Your task to perform on an android device: open app "Google Drive" (install if not already installed) Image 0: 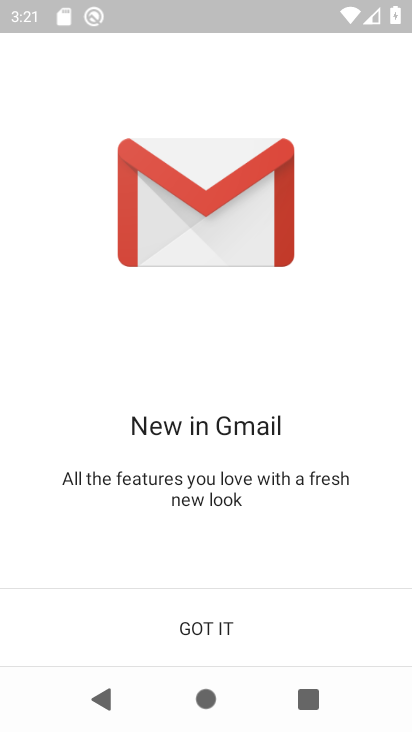
Step 0: press home button
Your task to perform on an android device: open app "Google Drive" (install if not already installed) Image 1: 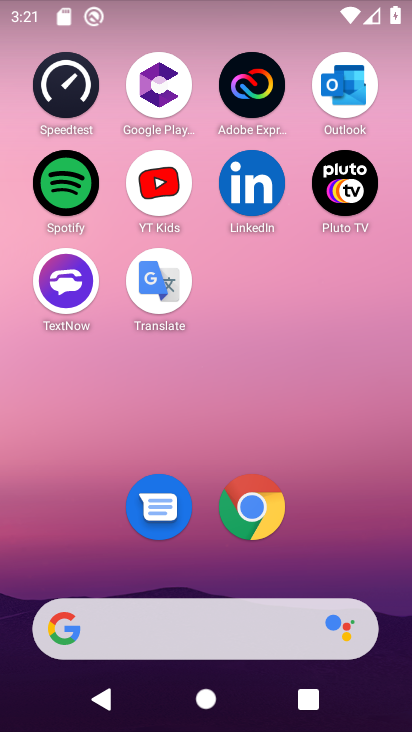
Step 1: drag from (139, 634) to (243, 113)
Your task to perform on an android device: open app "Google Drive" (install if not already installed) Image 2: 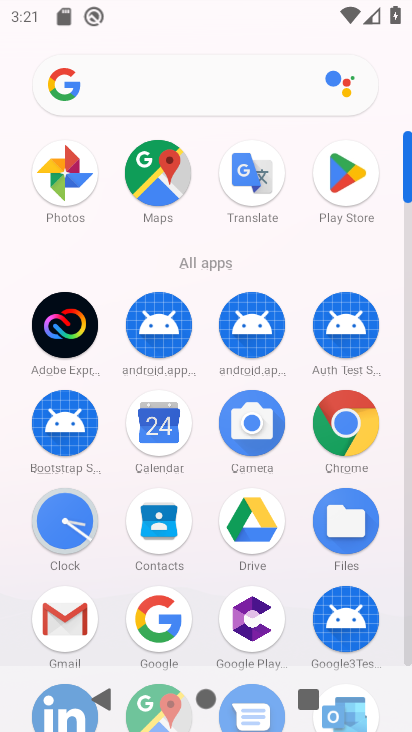
Step 2: click (343, 178)
Your task to perform on an android device: open app "Google Drive" (install if not already installed) Image 3: 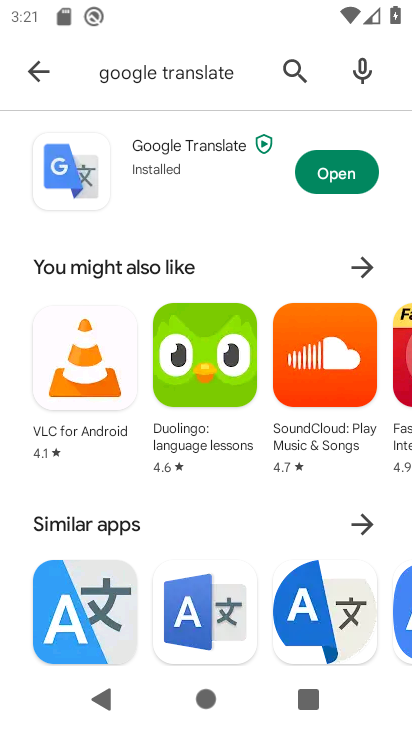
Step 3: press back button
Your task to perform on an android device: open app "Google Drive" (install if not already installed) Image 4: 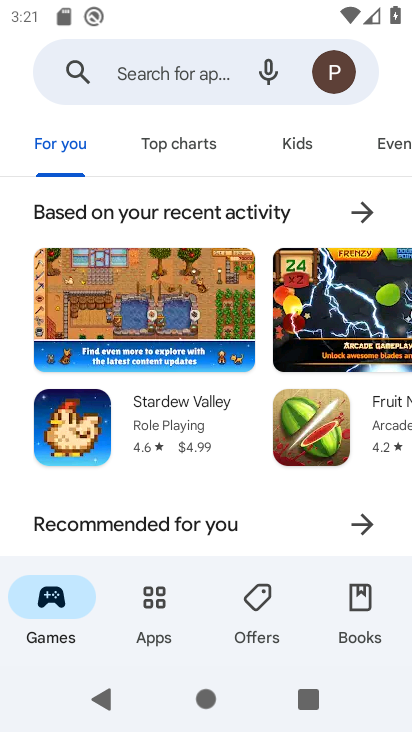
Step 4: click (192, 76)
Your task to perform on an android device: open app "Google Drive" (install if not already installed) Image 5: 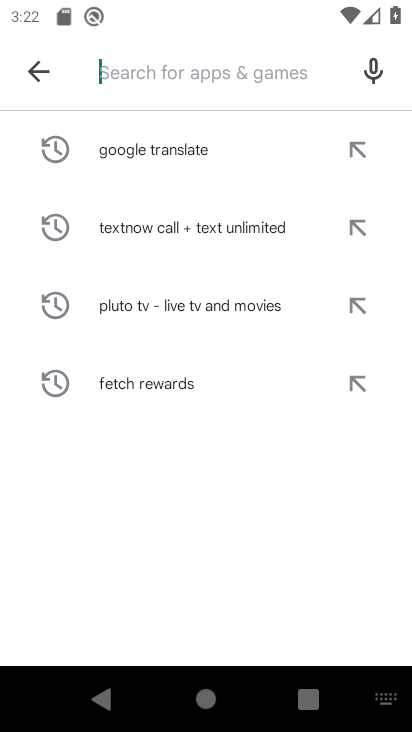
Step 5: type "Google Drive"
Your task to perform on an android device: open app "Google Drive" (install if not already installed) Image 6: 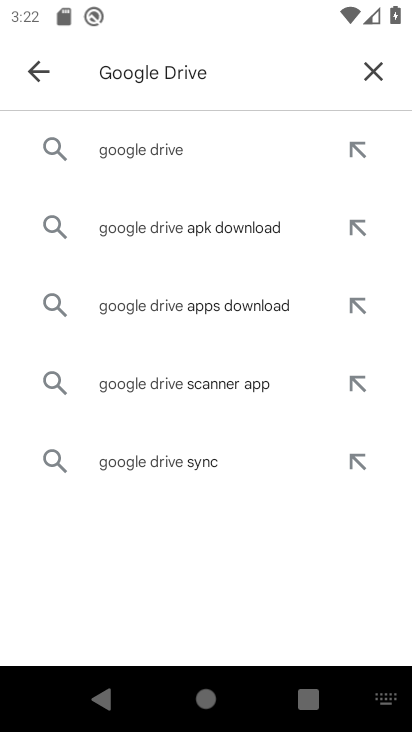
Step 6: click (162, 149)
Your task to perform on an android device: open app "Google Drive" (install if not already installed) Image 7: 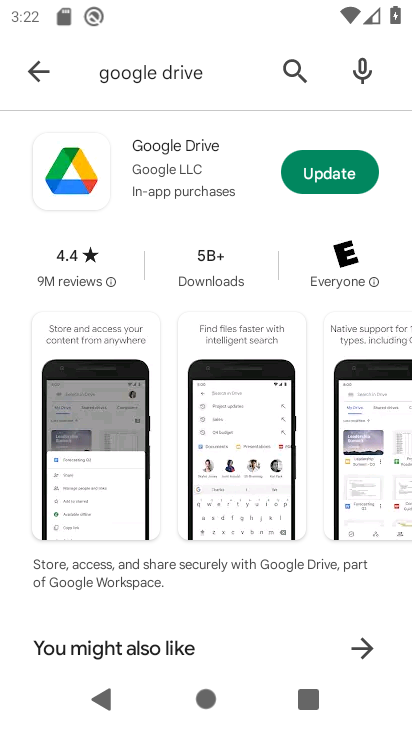
Step 7: click (319, 173)
Your task to perform on an android device: open app "Google Drive" (install if not already installed) Image 8: 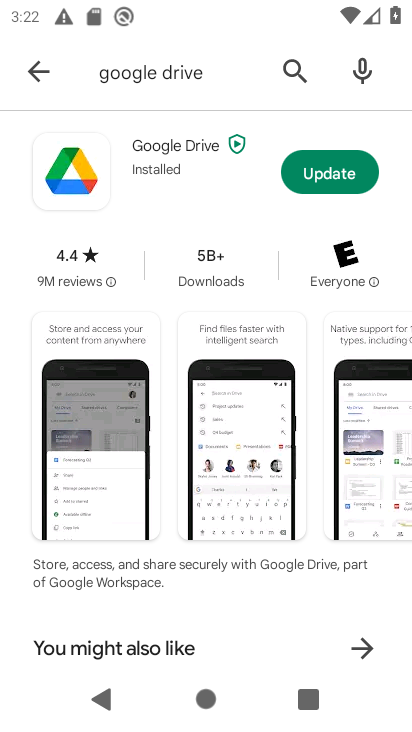
Step 8: click (98, 167)
Your task to perform on an android device: open app "Google Drive" (install if not already installed) Image 9: 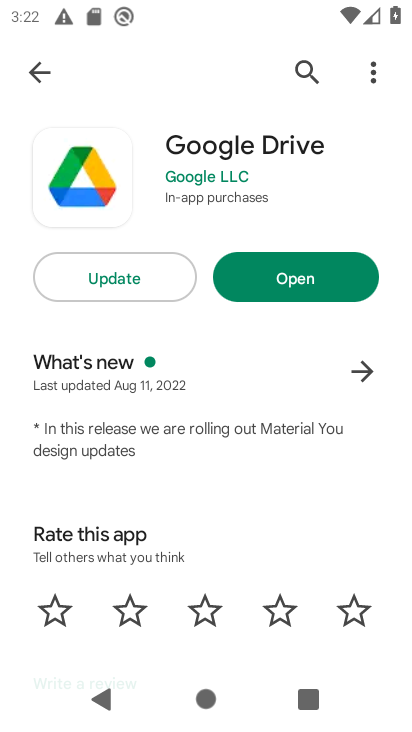
Step 9: click (297, 278)
Your task to perform on an android device: open app "Google Drive" (install if not already installed) Image 10: 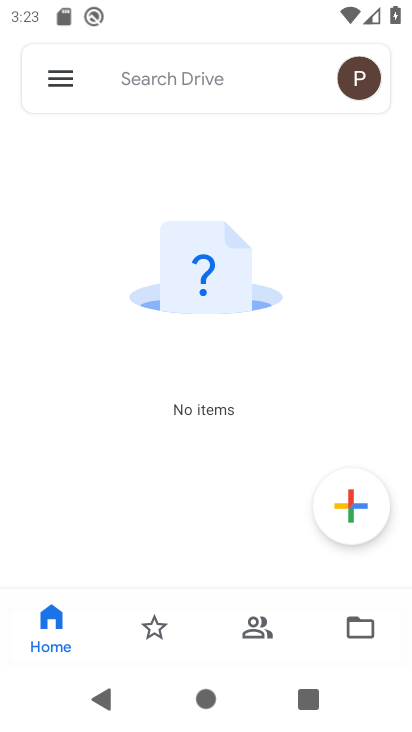
Step 10: task complete